Your task to perform on an android device: Go to Amazon Image 0: 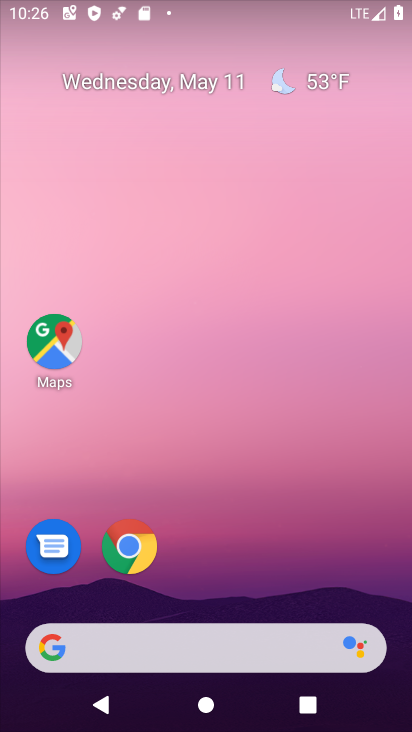
Step 0: drag from (388, 650) to (208, 62)
Your task to perform on an android device: Go to Amazon Image 1: 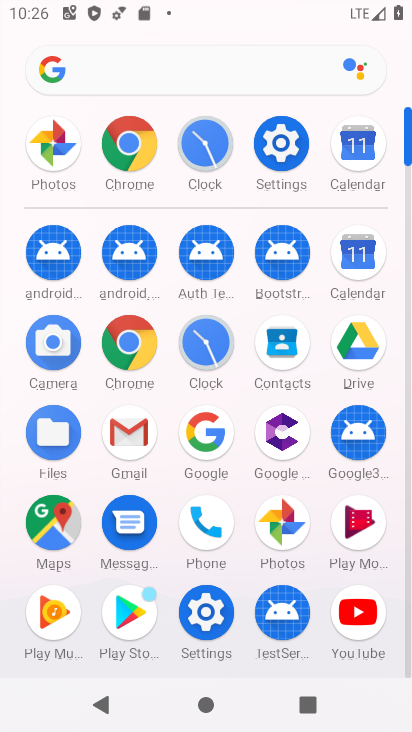
Step 1: click (141, 345)
Your task to perform on an android device: Go to Amazon Image 2: 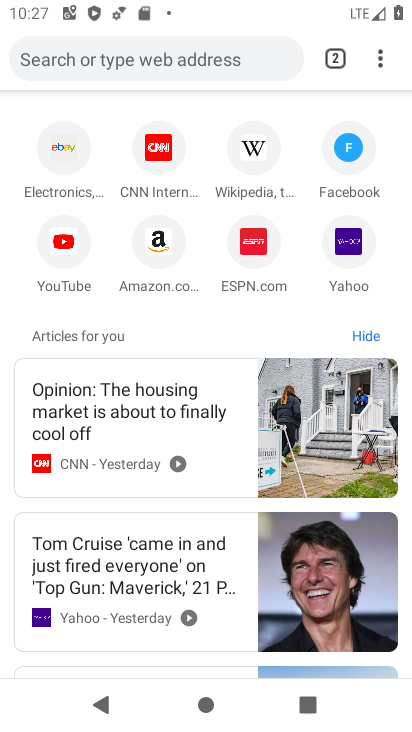
Step 2: click (169, 242)
Your task to perform on an android device: Go to Amazon Image 3: 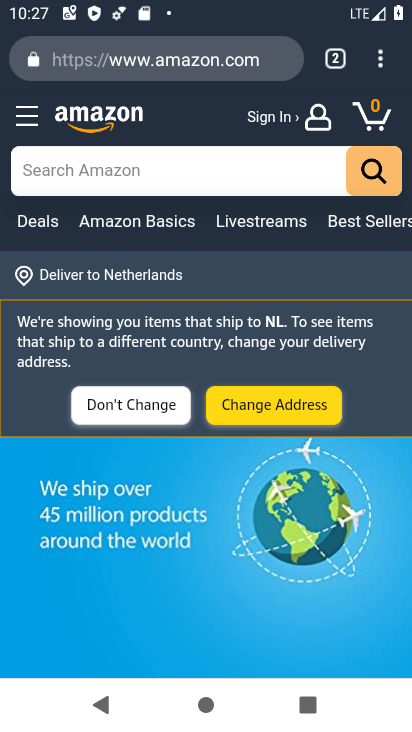
Step 3: task complete